Your task to perform on an android device: Open Chrome and go to settings Image 0: 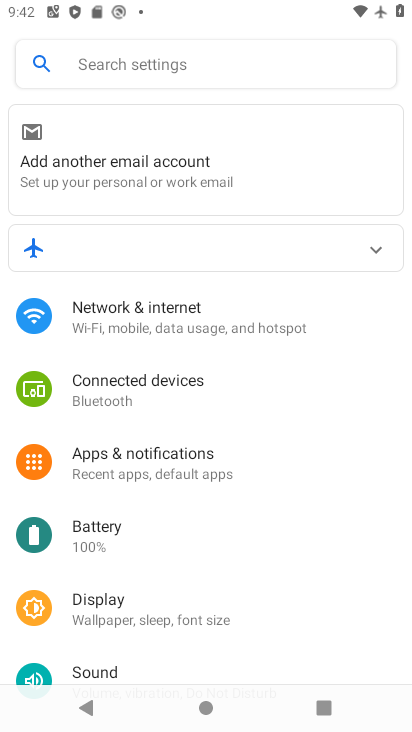
Step 0: press home button
Your task to perform on an android device: Open Chrome and go to settings Image 1: 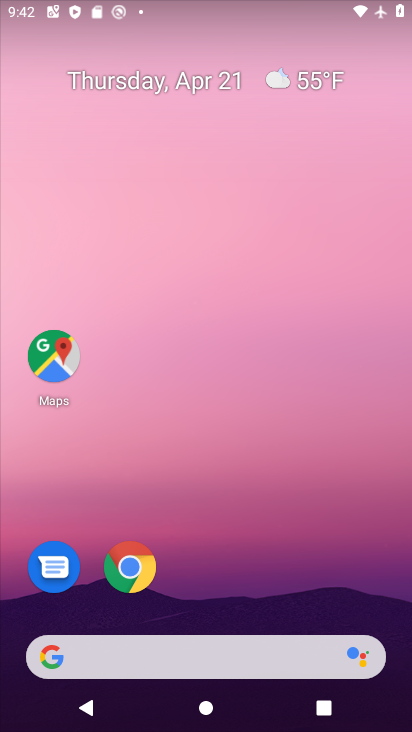
Step 1: drag from (349, 601) to (296, 132)
Your task to perform on an android device: Open Chrome and go to settings Image 2: 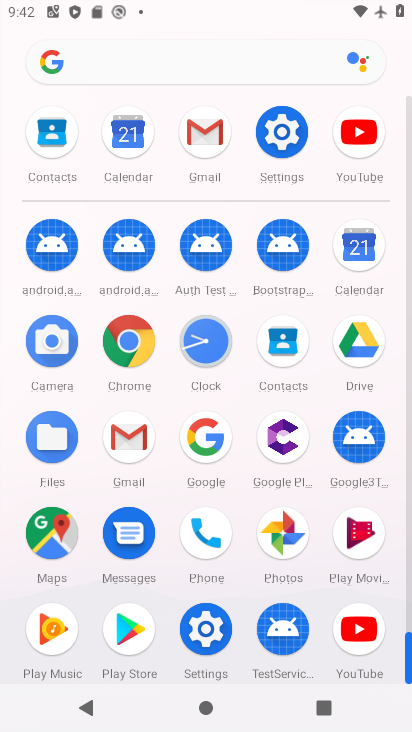
Step 2: click (126, 342)
Your task to perform on an android device: Open Chrome and go to settings Image 3: 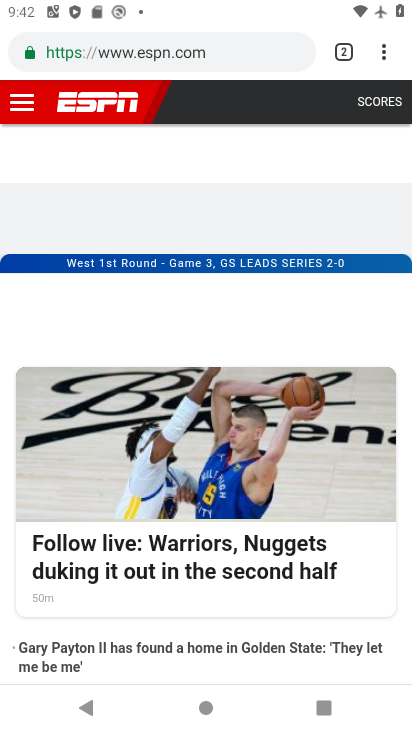
Step 3: click (384, 56)
Your task to perform on an android device: Open Chrome and go to settings Image 4: 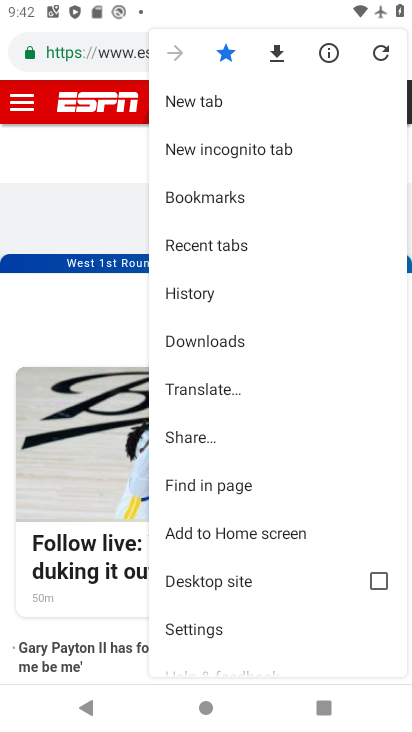
Step 4: drag from (270, 576) to (328, 146)
Your task to perform on an android device: Open Chrome and go to settings Image 5: 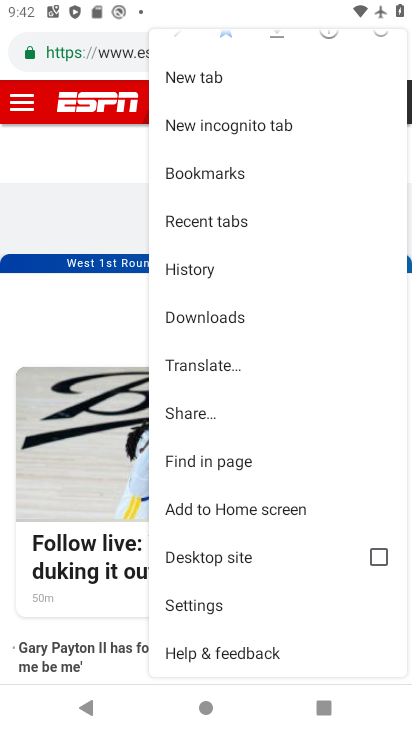
Step 5: click (194, 605)
Your task to perform on an android device: Open Chrome and go to settings Image 6: 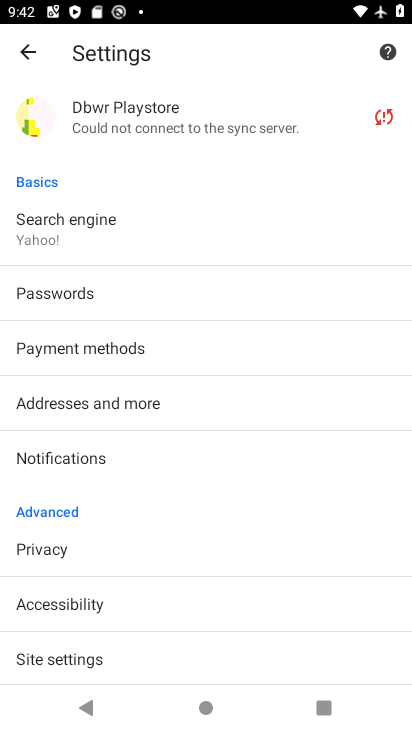
Step 6: task complete